Your task to perform on an android device: Go to notification settings Image 0: 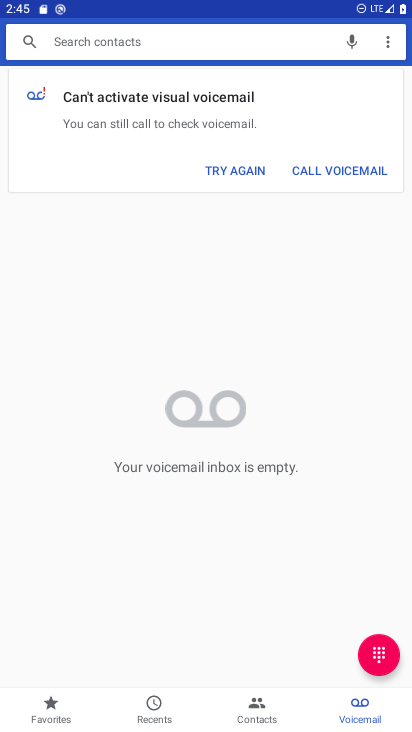
Step 0: click (349, 423)
Your task to perform on an android device: Go to notification settings Image 1: 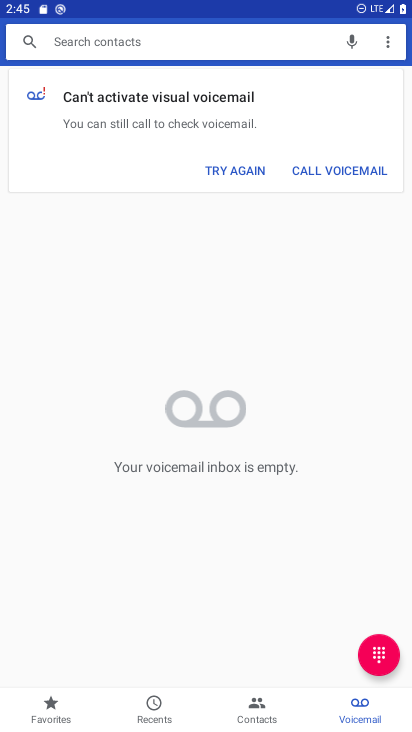
Step 1: press home button
Your task to perform on an android device: Go to notification settings Image 2: 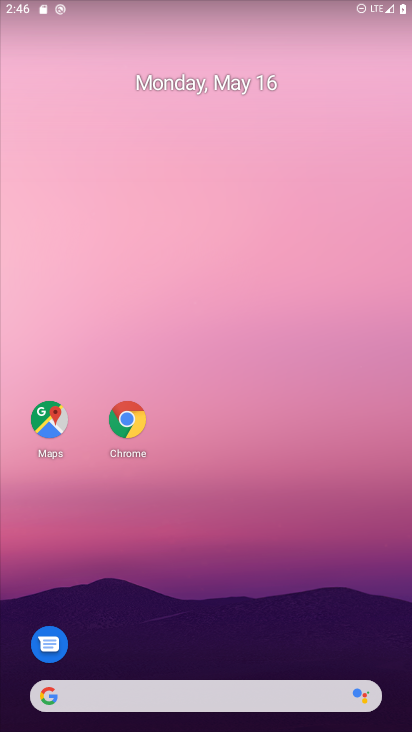
Step 2: drag from (193, 325) to (222, 97)
Your task to perform on an android device: Go to notification settings Image 3: 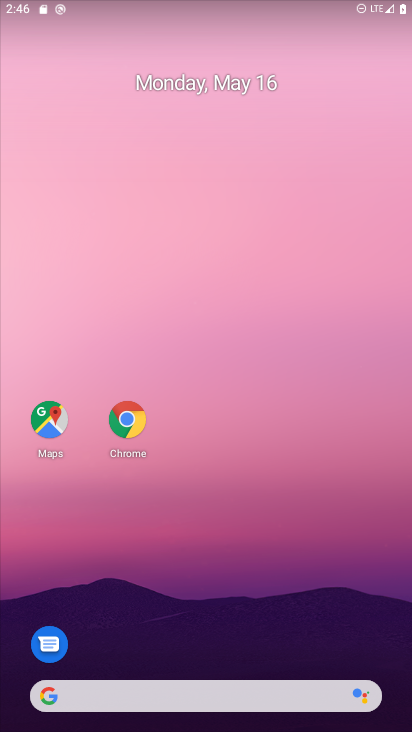
Step 3: drag from (210, 580) to (239, 35)
Your task to perform on an android device: Go to notification settings Image 4: 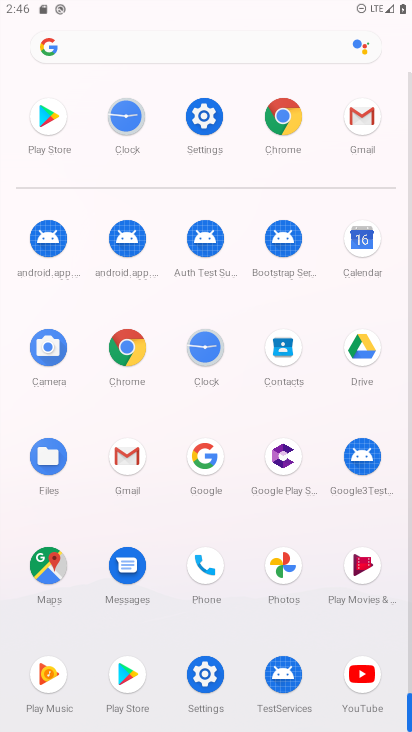
Step 4: click (193, 110)
Your task to perform on an android device: Go to notification settings Image 5: 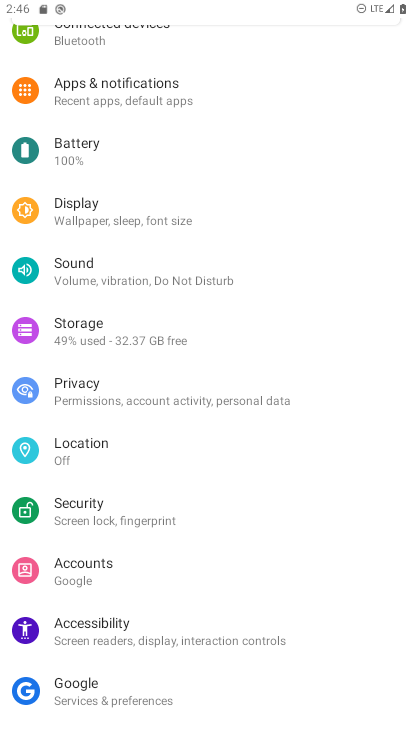
Step 5: click (164, 100)
Your task to perform on an android device: Go to notification settings Image 6: 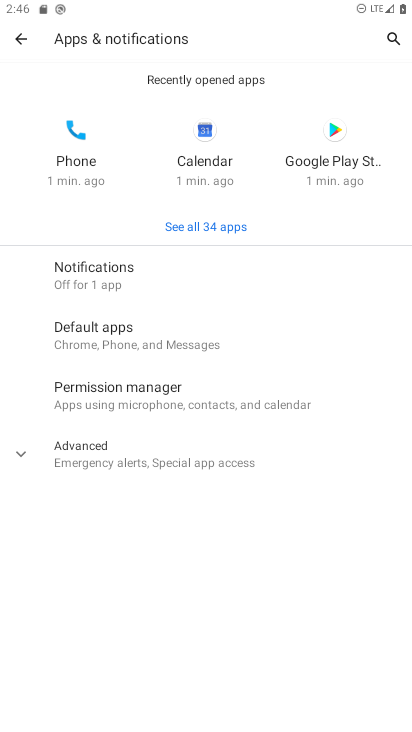
Step 6: click (162, 273)
Your task to perform on an android device: Go to notification settings Image 7: 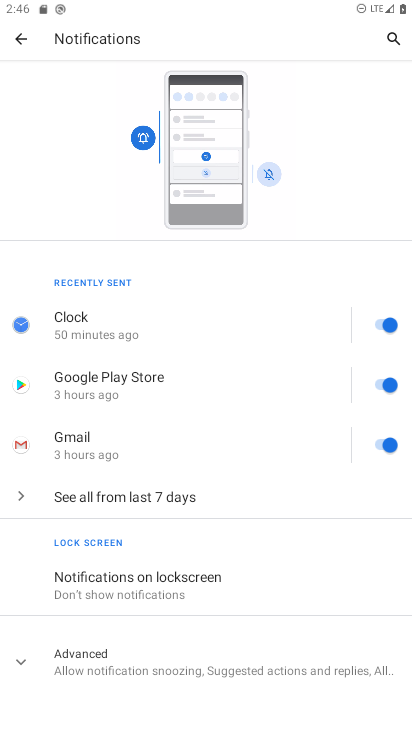
Step 7: task complete